Your task to perform on an android device: Open Chrome and go to settings Image 0: 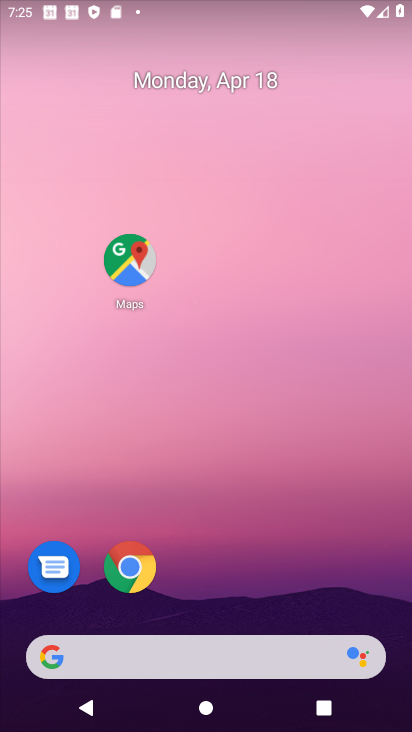
Step 0: drag from (282, 685) to (290, 179)
Your task to perform on an android device: Open Chrome and go to settings Image 1: 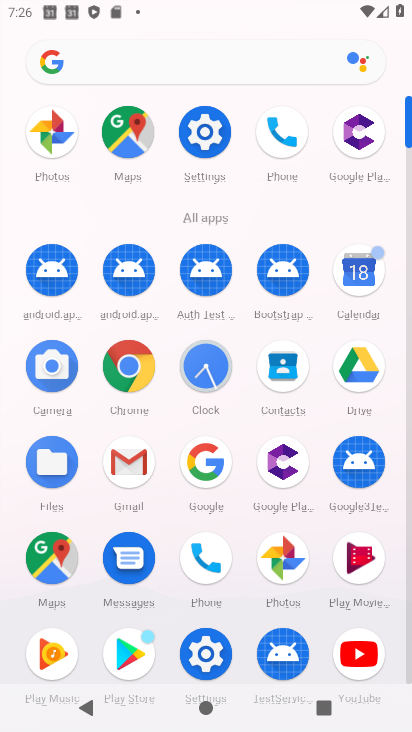
Step 1: click (204, 650)
Your task to perform on an android device: Open Chrome and go to settings Image 2: 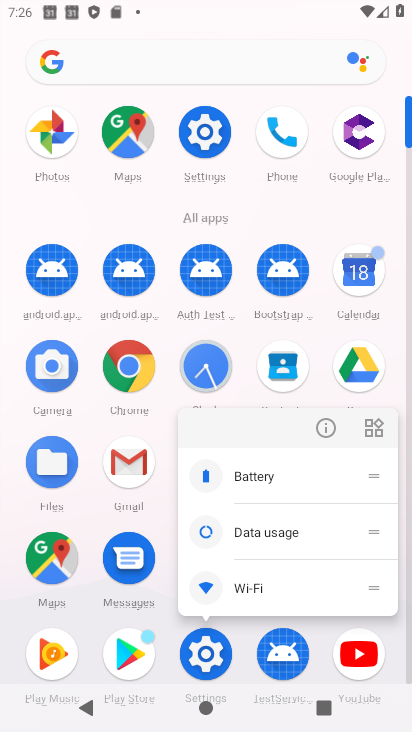
Step 2: click (215, 656)
Your task to perform on an android device: Open Chrome and go to settings Image 3: 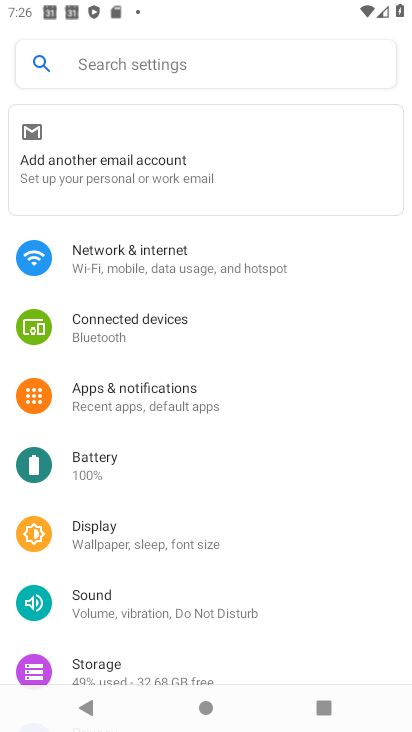
Step 3: press home button
Your task to perform on an android device: Open Chrome and go to settings Image 4: 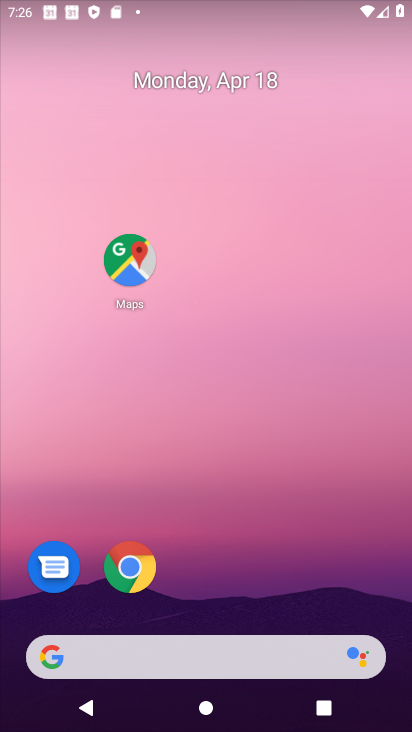
Step 4: click (130, 554)
Your task to perform on an android device: Open Chrome and go to settings Image 5: 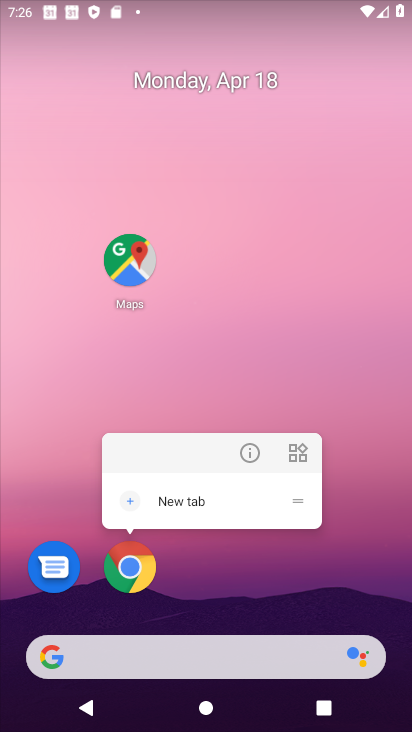
Step 5: click (171, 558)
Your task to perform on an android device: Open Chrome and go to settings Image 6: 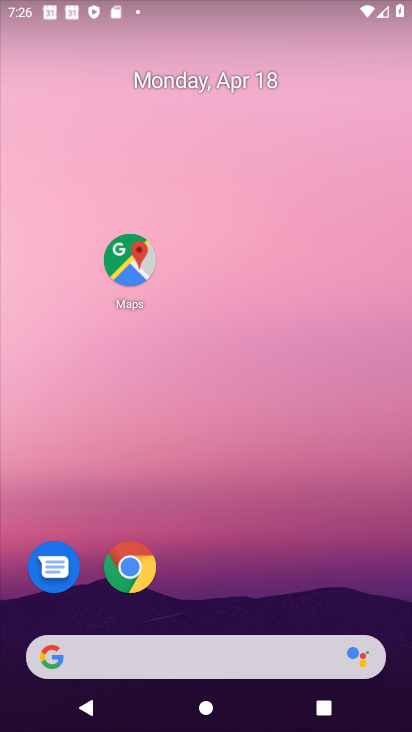
Step 6: click (136, 565)
Your task to perform on an android device: Open Chrome and go to settings Image 7: 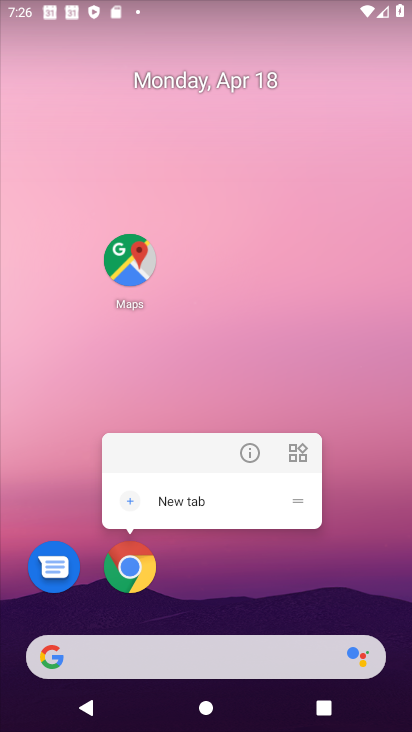
Step 7: click (116, 577)
Your task to perform on an android device: Open Chrome and go to settings Image 8: 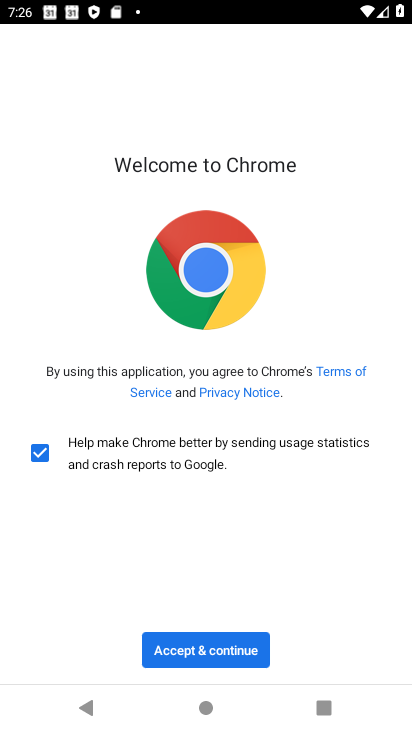
Step 8: click (227, 649)
Your task to perform on an android device: Open Chrome and go to settings Image 9: 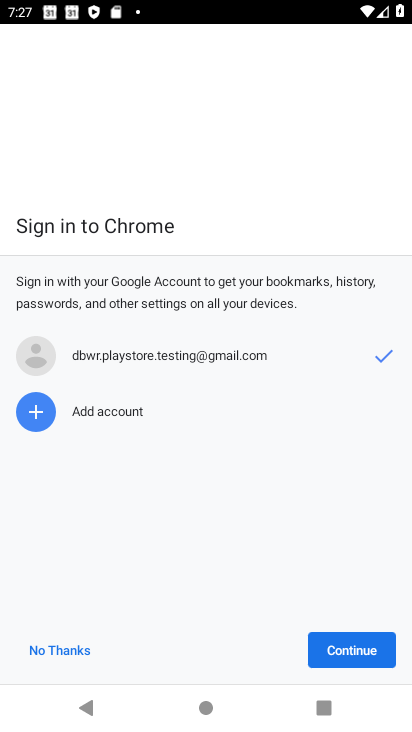
Step 9: click (335, 648)
Your task to perform on an android device: Open Chrome and go to settings Image 10: 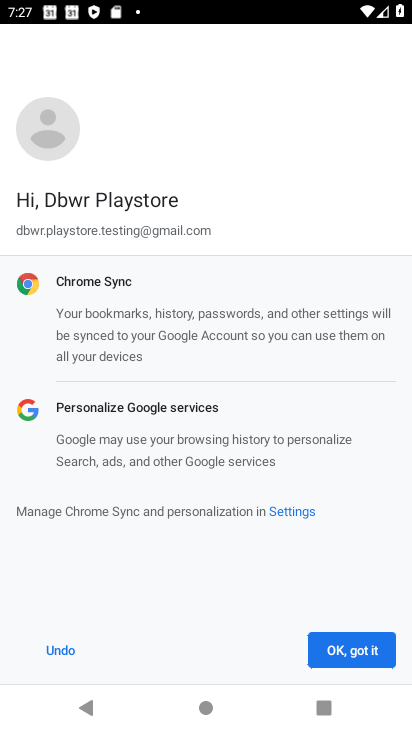
Step 10: click (336, 648)
Your task to perform on an android device: Open Chrome and go to settings Image 11: 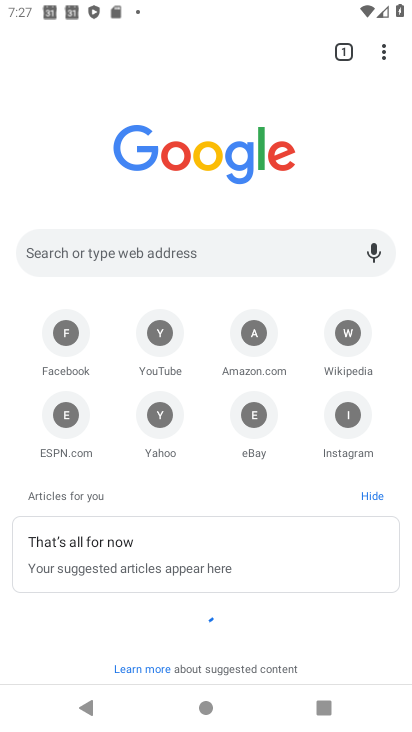
Step 11: click (389, 55)
Your task to perform on an android device: Open Chrome and go to settings Image 12: 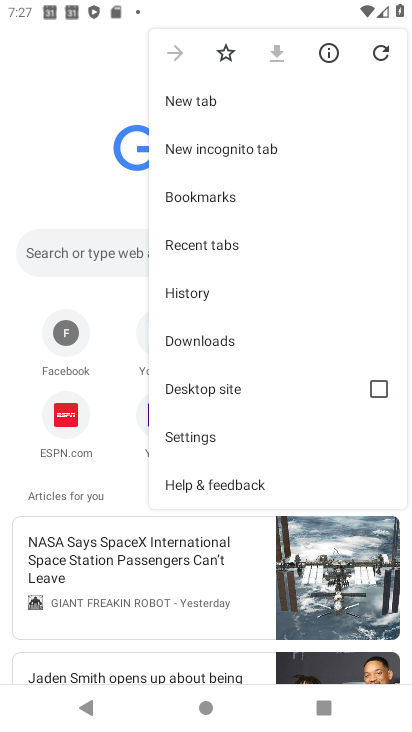
Step 12: click (191, 436)
Your task to perform on an android device: Open Chrome and go to settings Image 13: 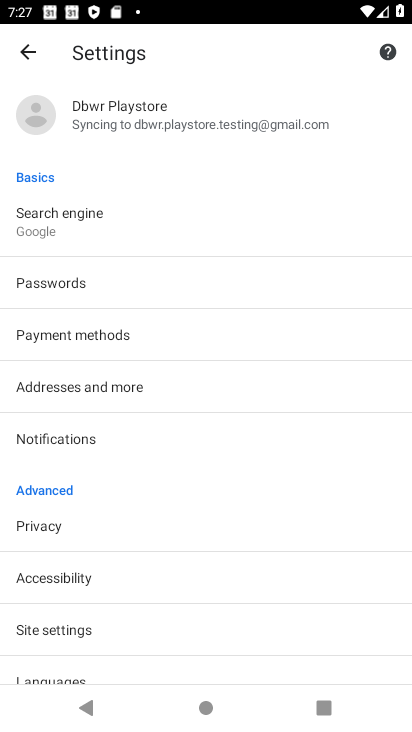
Step 13: task complete